Your task to perform on an android device: Open calendar and show me the fourth week of next month Image 0: 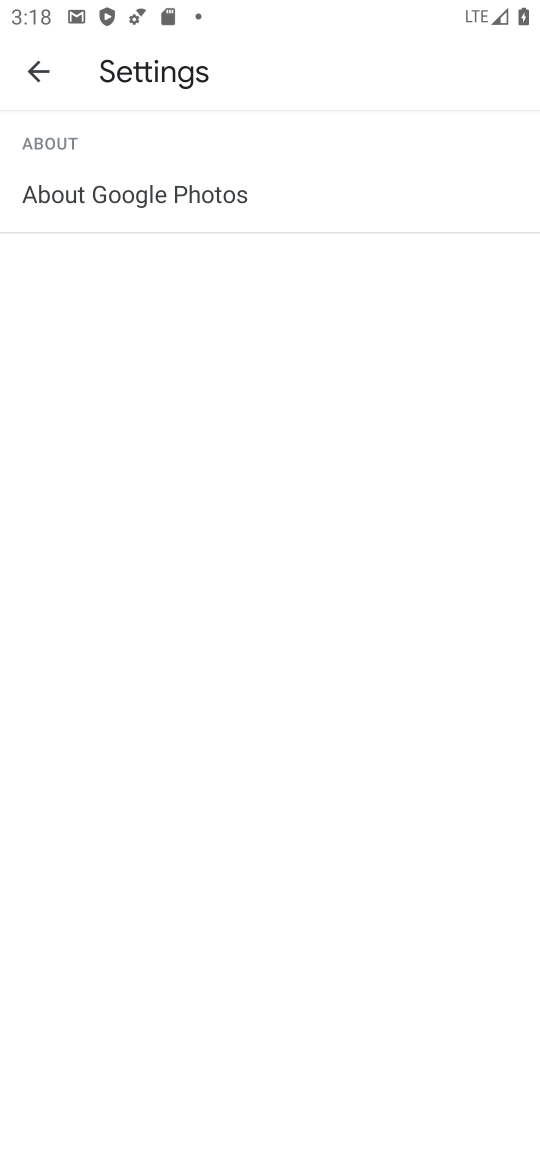
Step 0: press home button
Your task to perform on an android device: Open calendar and show me the fourth week of next month Image 1: 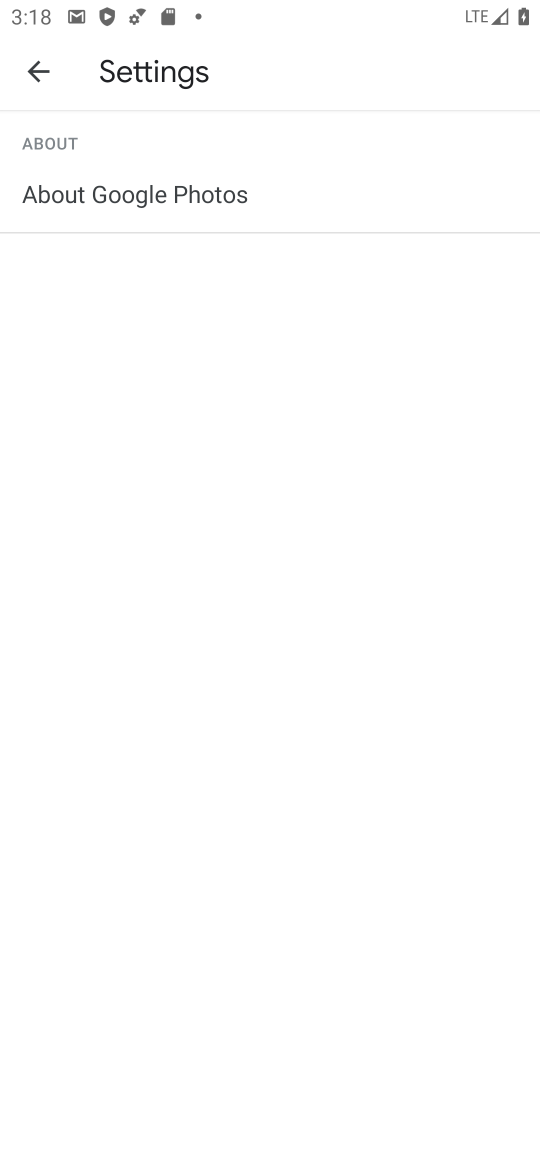
Step 1: press home button
Your task to perform on an android device: Open calendar and show me the fourth week of next month Image 2: 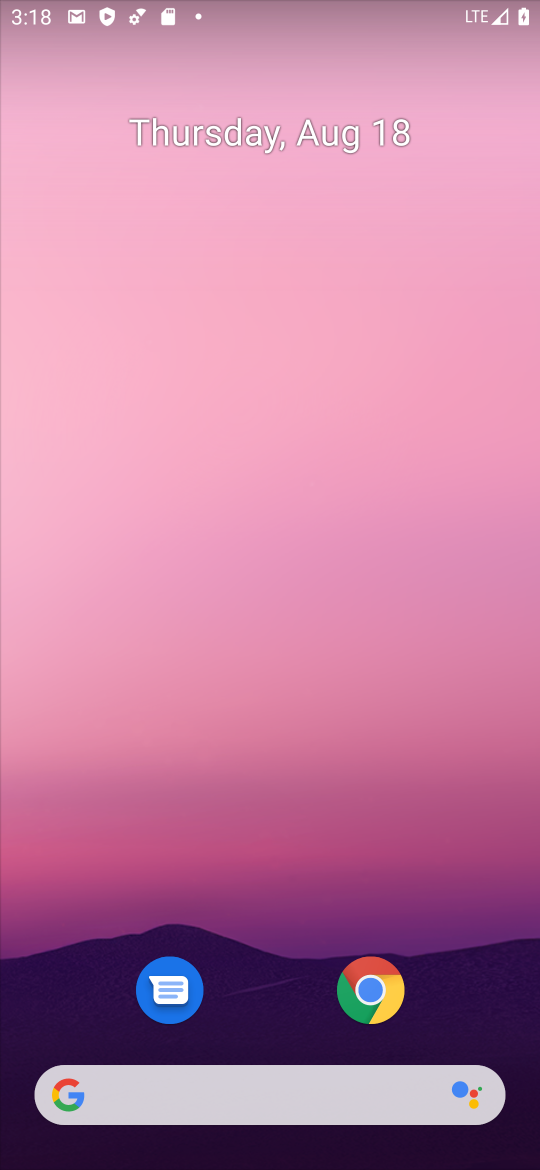
Step 2: drag from (266, 667) to (442, 83)
Your task to perform on an android device: Open calendar and show me the fourth week of next month Image 3: 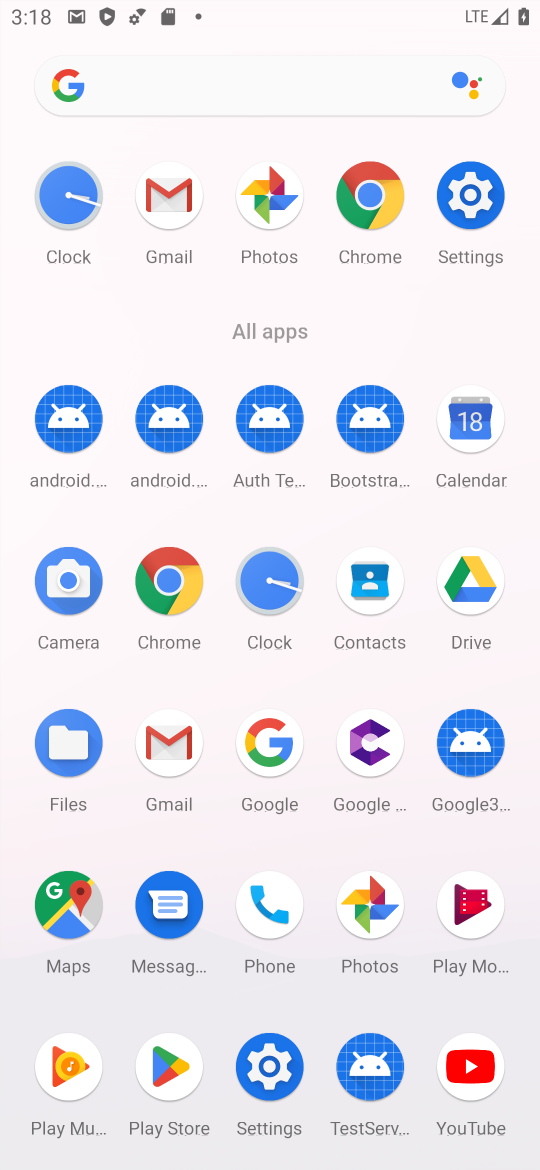
Step 3: click (457, 447)
Your task to perform on an android device: Open calendar and show me the fourth week of next month Image 4: 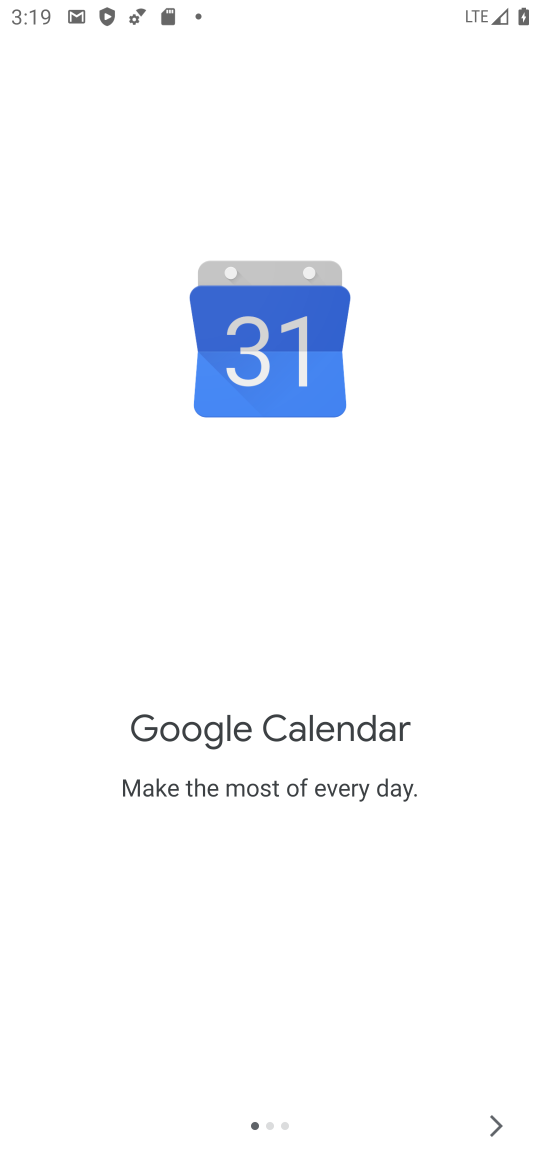
Step 4: click (481, 1112)
Your task to perform on an android device: Open calendar and show me the fourth week of next month Image 5: 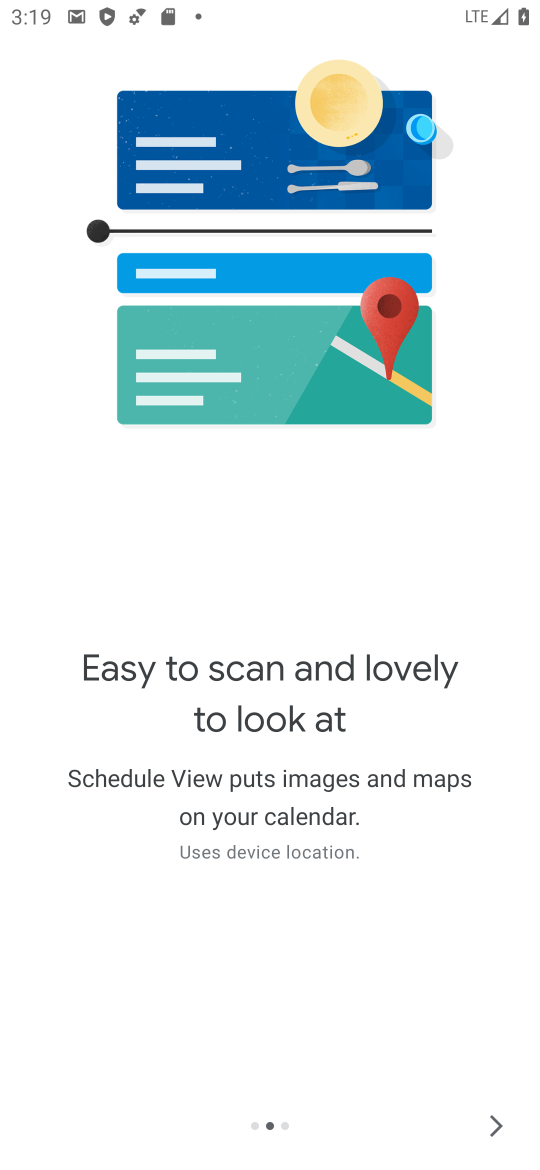
Step 5: click (481, 1112)
Your task to perform on an android device: Open calendar and show me the fourth week of next month Image 6: 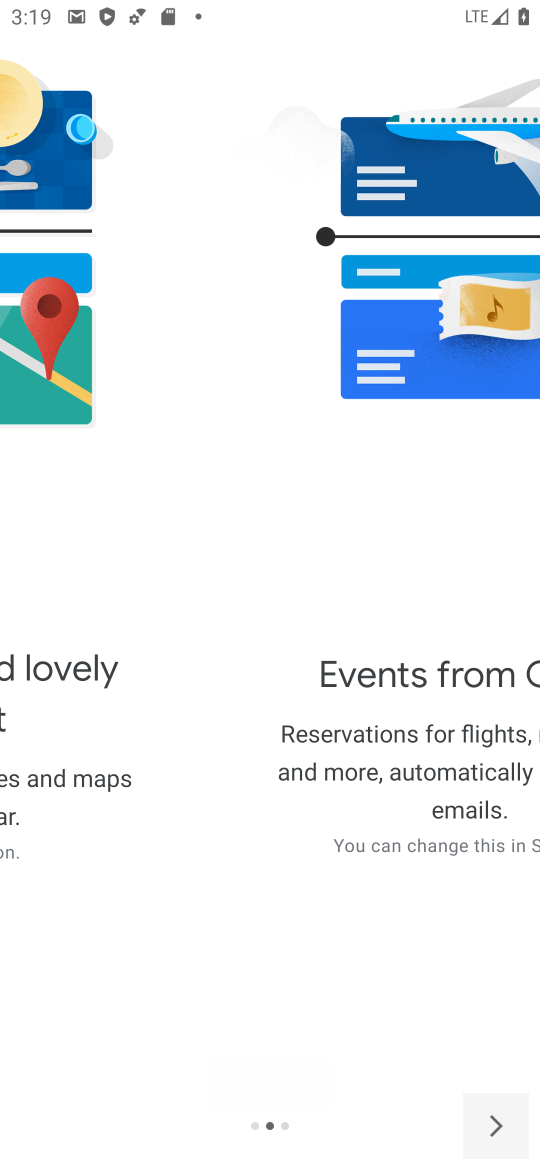
Step 6: click (481, 1112)
Your task to perform on an android device: Open calendar and show me the fourth week of next month Image 7: 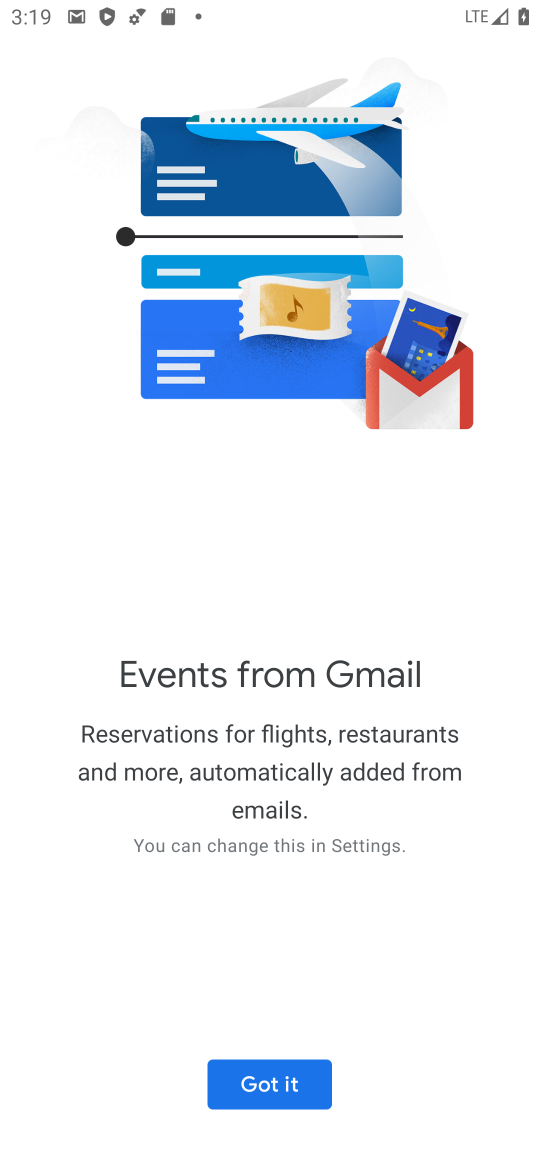
Step 7: click (274, 1097)
Your task to perform on an android device: Open calendar and show me the fourth week of next month Image 8: 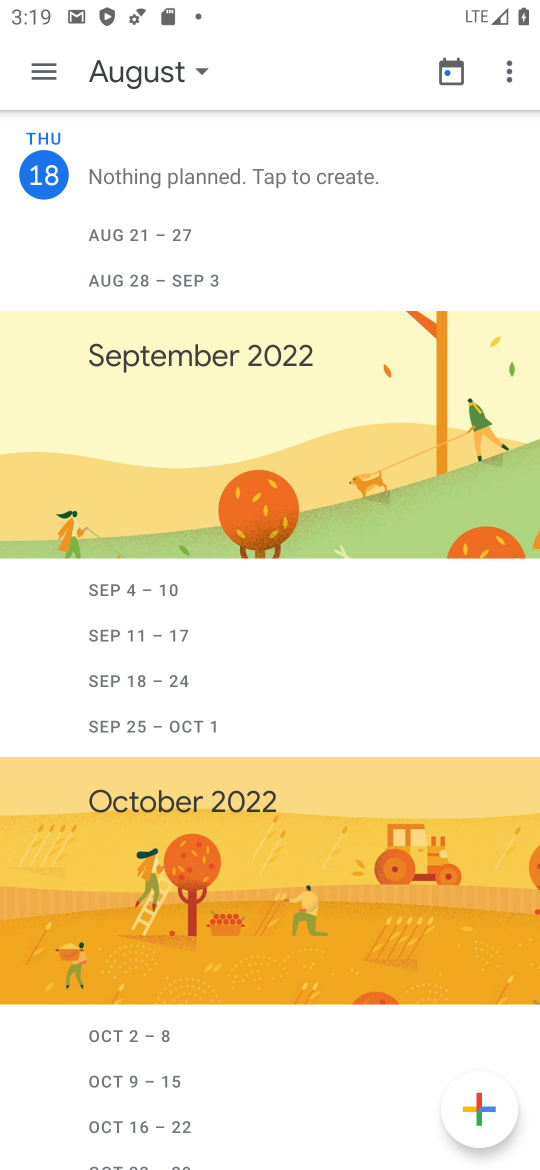
Step 8: click (116, 62)
Your task to perform on an android device: Open calendar and show me the fourth week of next month Image 9: 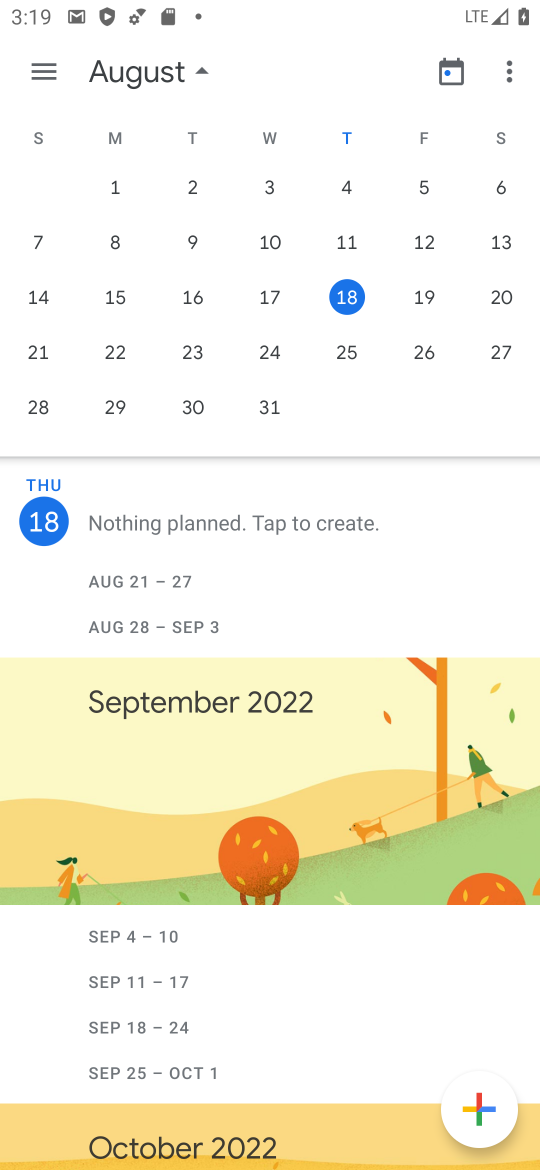
Step 9: drag from (491, 353) to (72, 331)
Your task to perform on an android device: Open calendar and show me the fourth week of next month Image 10: 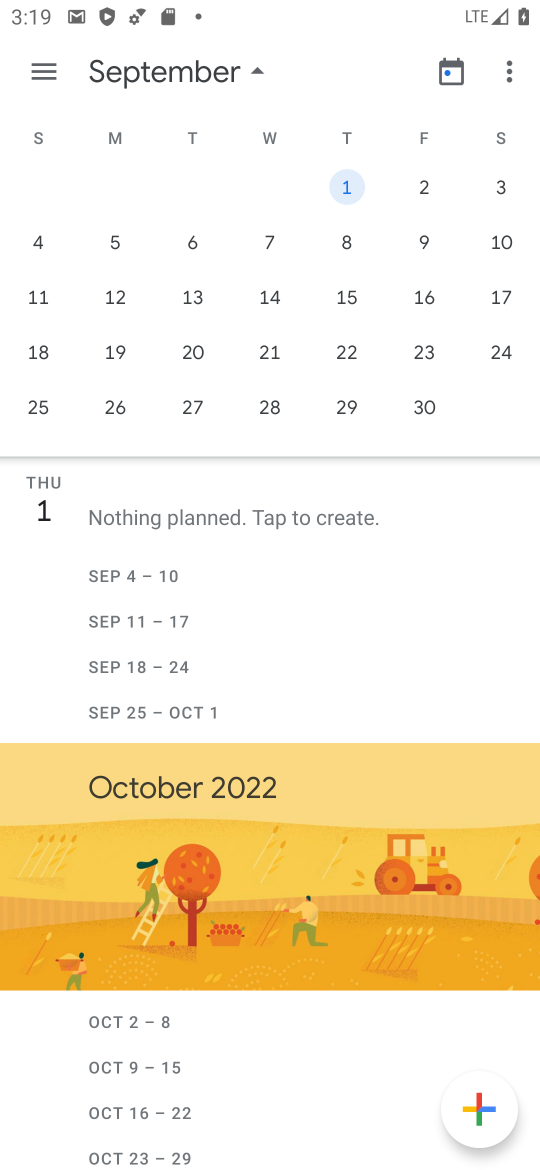
Step 10: click (110, 401)
Your task to perform on an android device: Open calendar and show me the fourth week of next month Image 11: 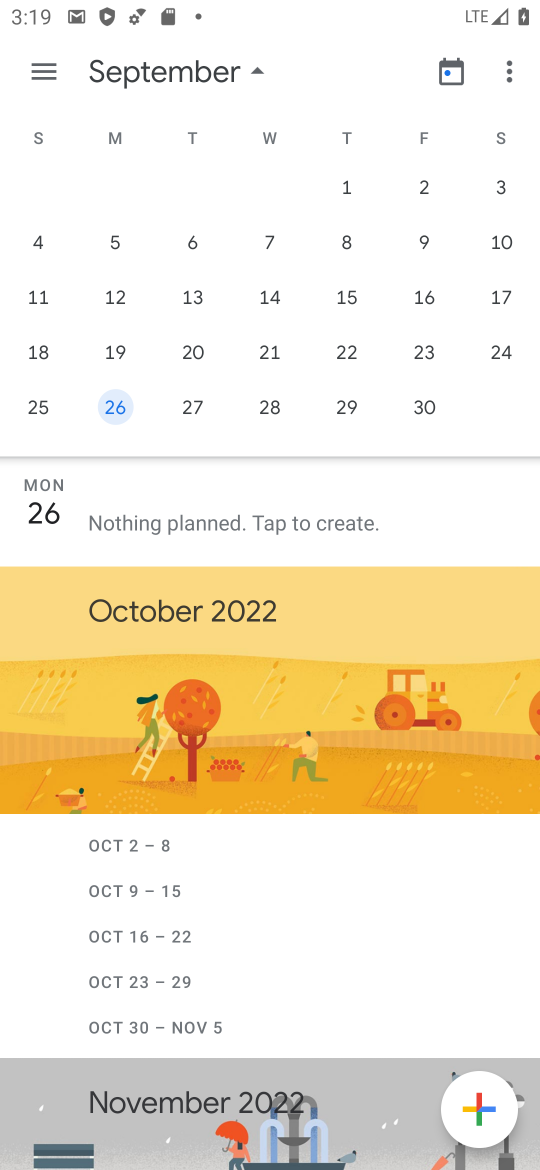
Step 11: drag from (264, 793) to (326, 513)
Your task to perform on an android device: Open calendar and show me the fourth week of next month Image 12: 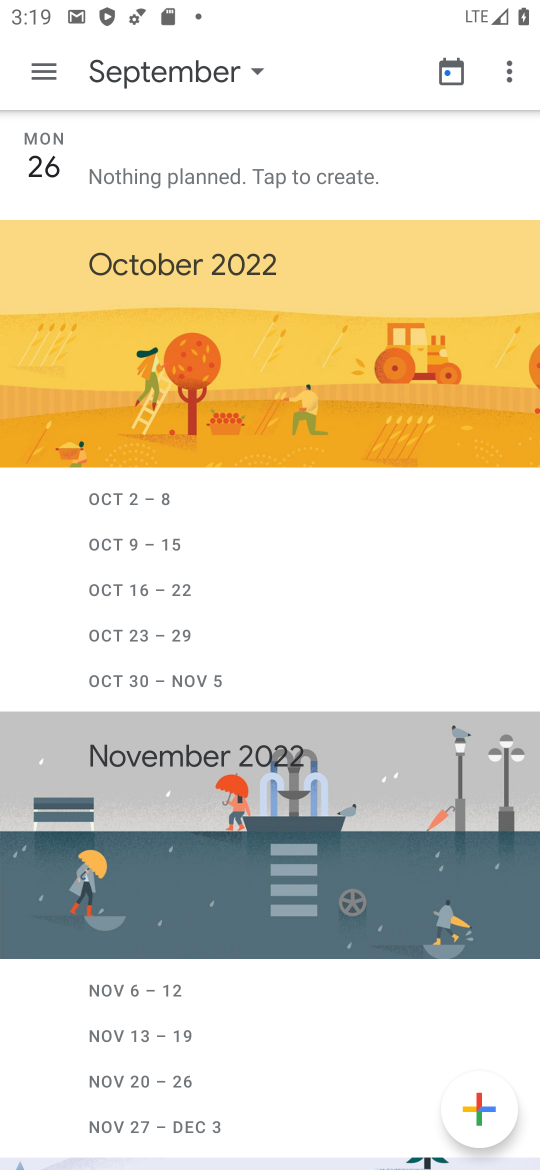
Step 12: click (45, 55)
Your task to perform on an android device: Open calendar and show me the fourth week of next month Image 13: 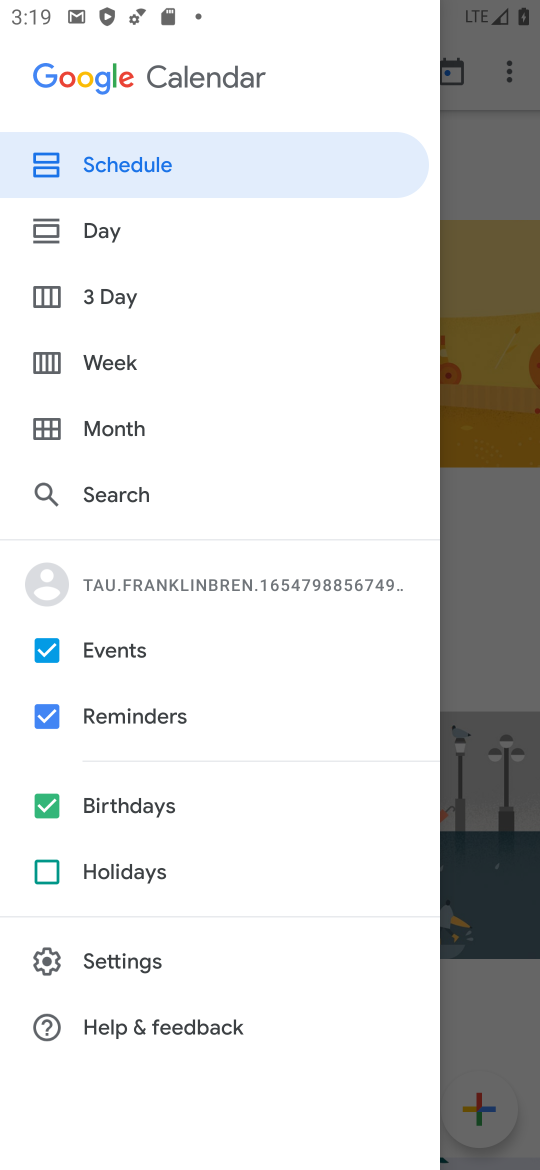
Step 13: click (128, 378)
Your task to perform on an android device: Open calendar and show me the fourth week of next month Image 14: 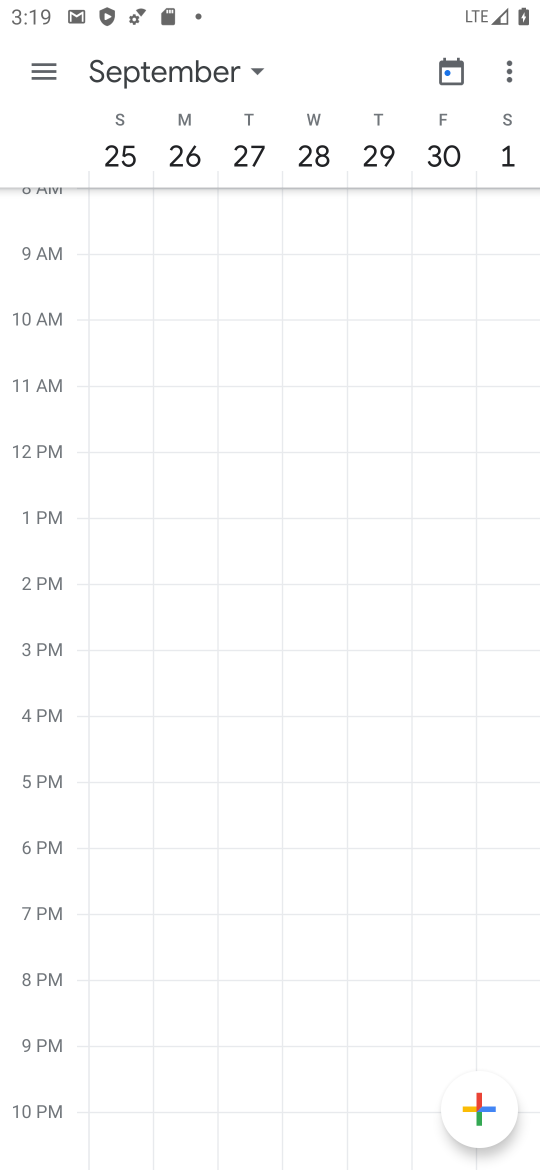
Step 14: task complete